Your task to perform on an android device: Add "logitech g933" to the cart on walmart Image 0: 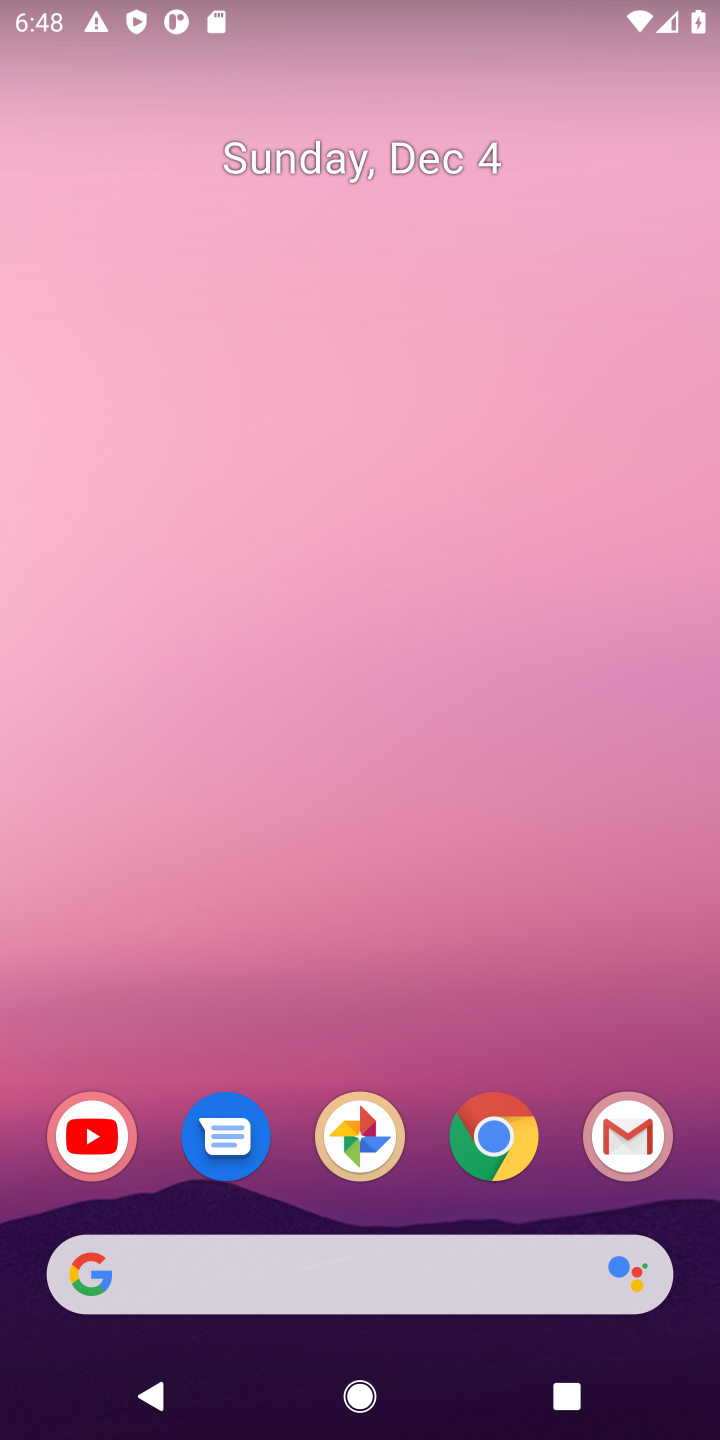
Step 0: click (488, 1148)
Your task to perform on an android device: Add "logitech g933" to the cart on walmart Image 1: 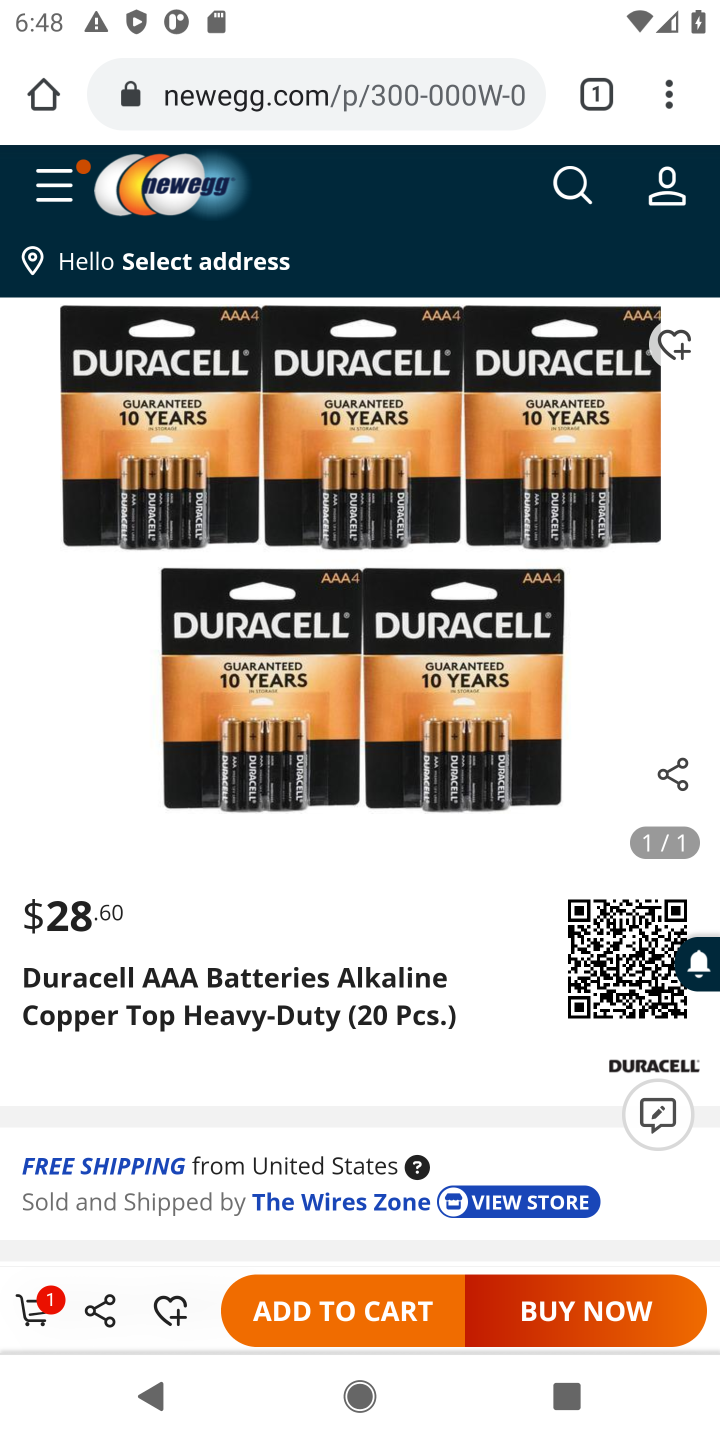
Step 1: click (250, 92)
Your task to perform on an android device: Add "logitech g933" to the cart on walmart Image 2: 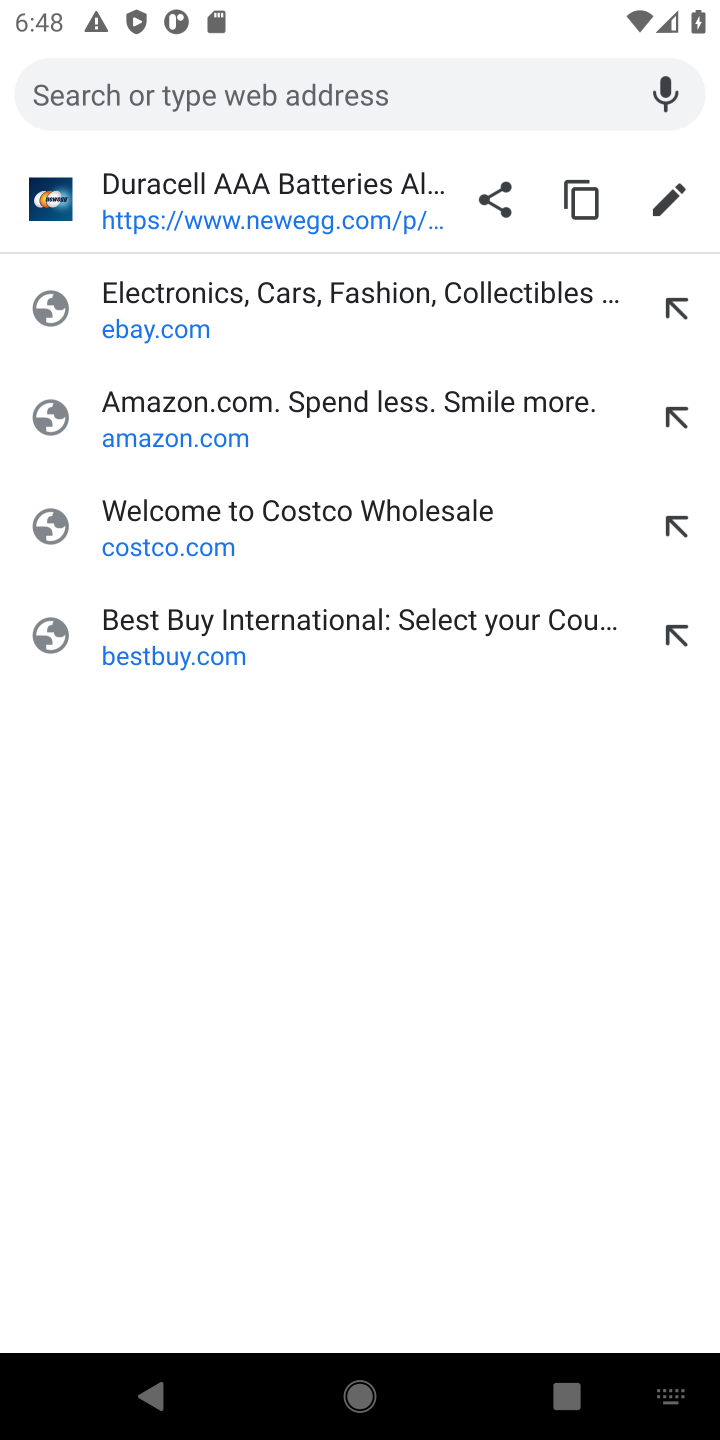
Step 2: type "walmart.com"
Your task to perform on an android device: Add "logitech g933" to the cart on walmart Image 3: 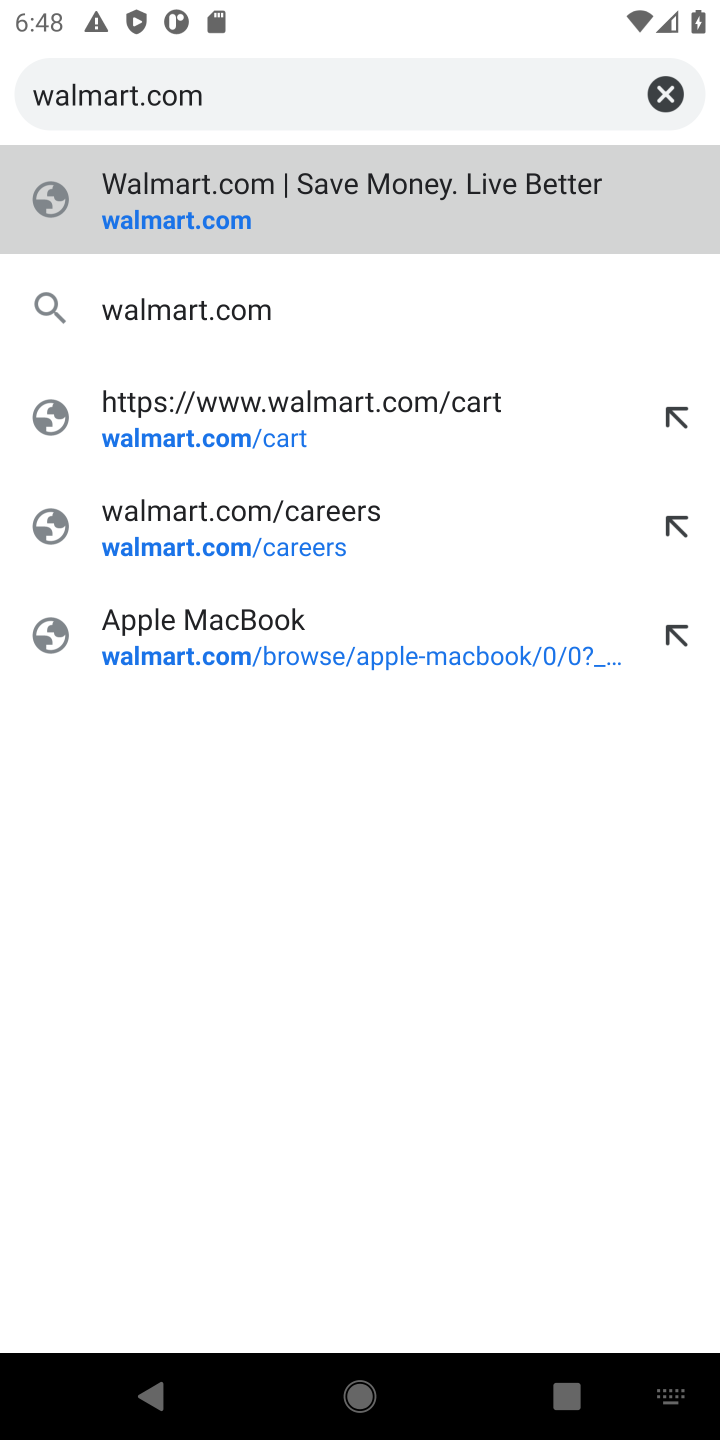
Step 3: click (199, 218)
Your task to perform on an android device: Add "logitech g933" to the cart on walmart Image 4: 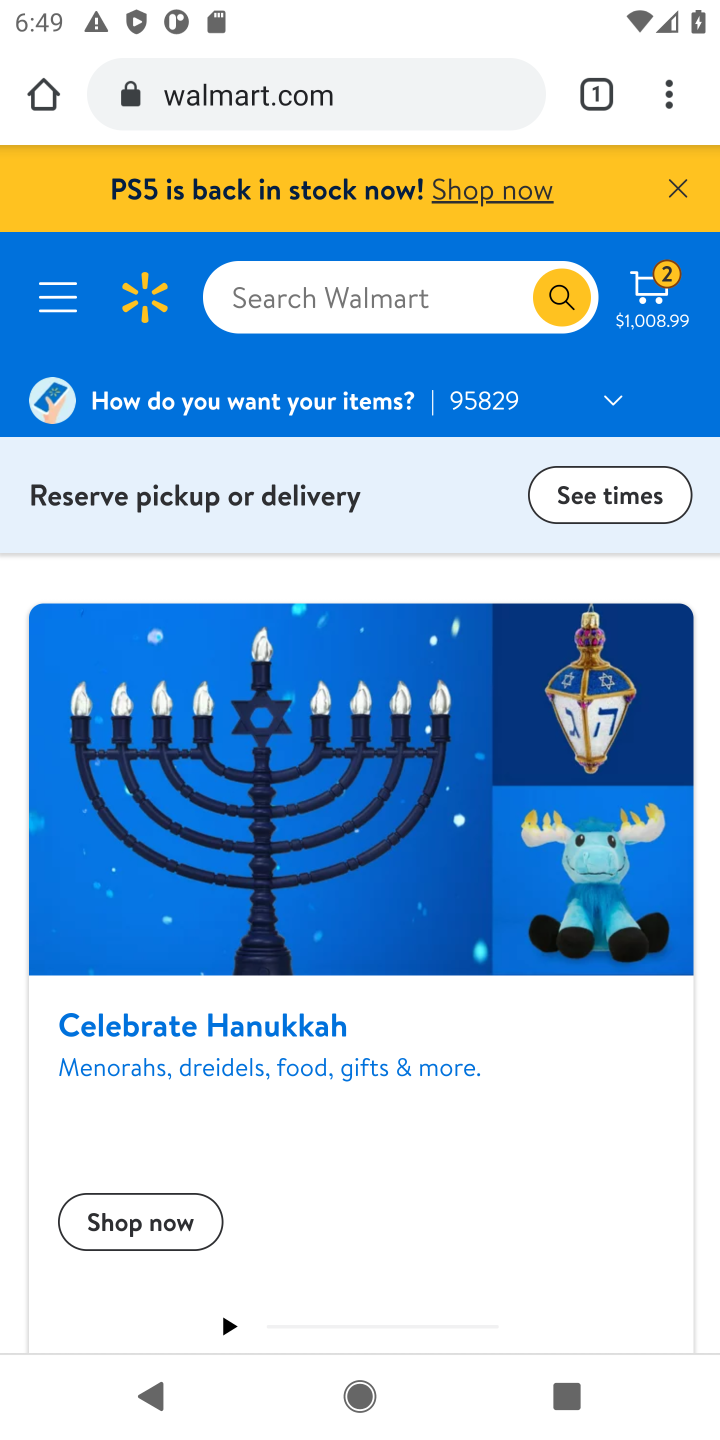
Step 4: click (272, 313)
Your task to perform on an android device: Add "logitech g933" to the cart on walmart Image 5: 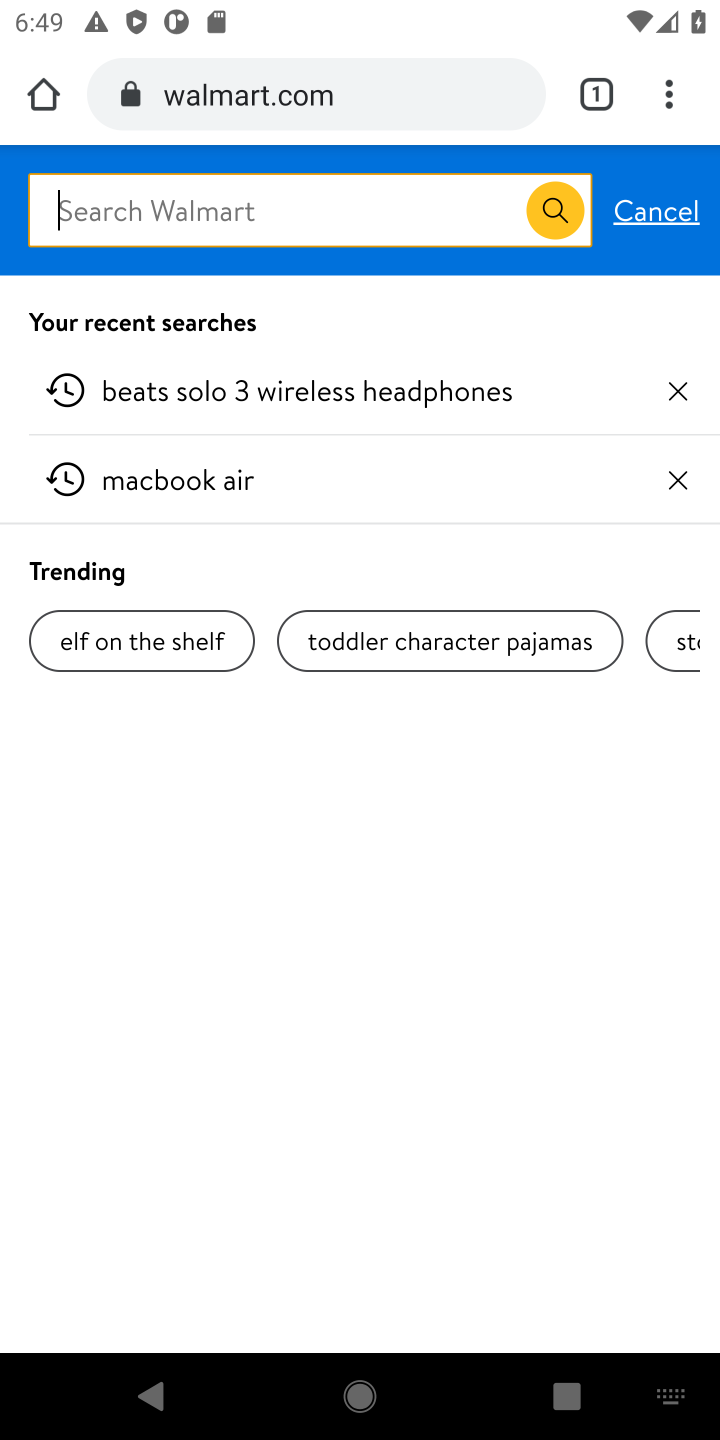
Step 5: type "logitech g933"
Your task to perform on an android device: Add "logitech g933" to the cart on walmart Image 6: 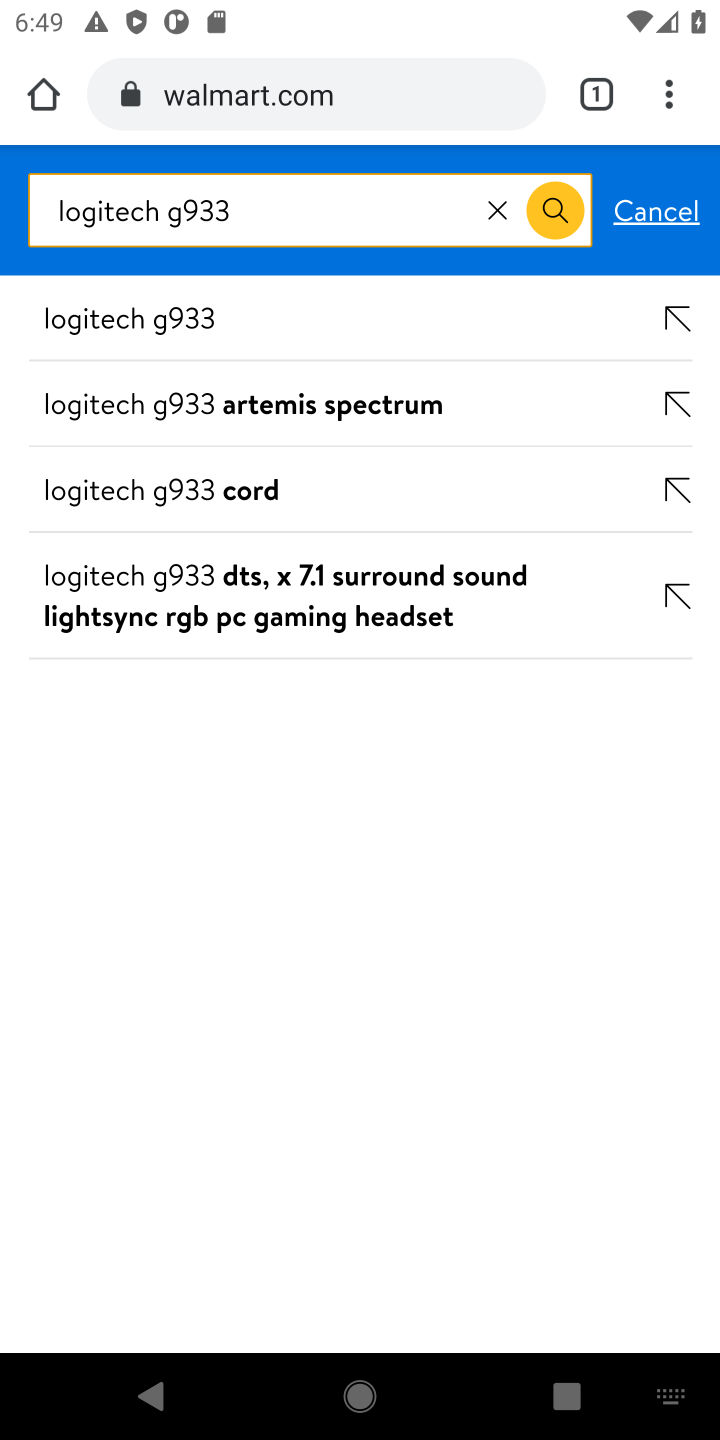
Step 6: click (144, 328)
Your task to perform on an android device: Add "logitech g933" to the cart on walmart Image 7: 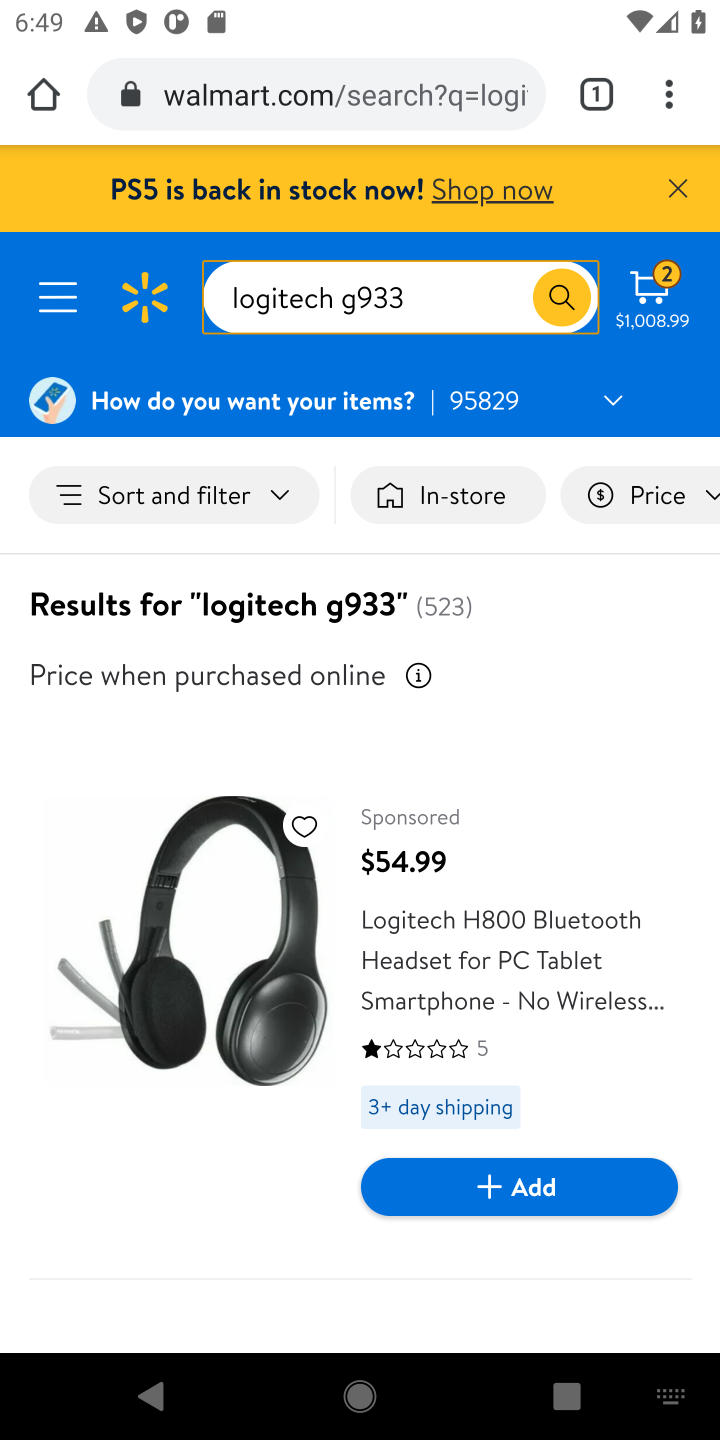
Step 7: drag from (548, 1018) to (536, 535)
Your task to perform on an android device: Add "logitech g933" to the cart on walmart Image 8: 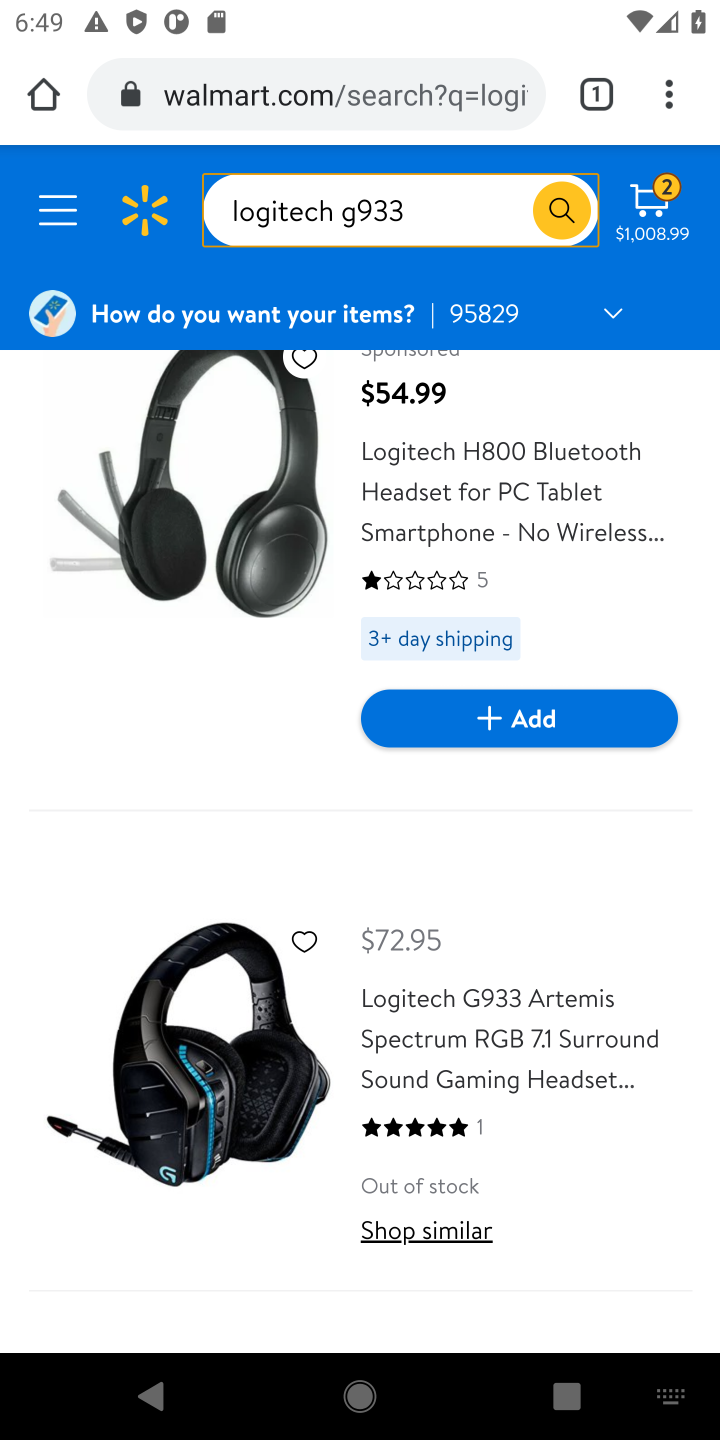
Step 8: drag from (589, 1066) to (565, 743)
Your task to perform on an android device: Add "logitech g933" to the cart on walmart Image 9: 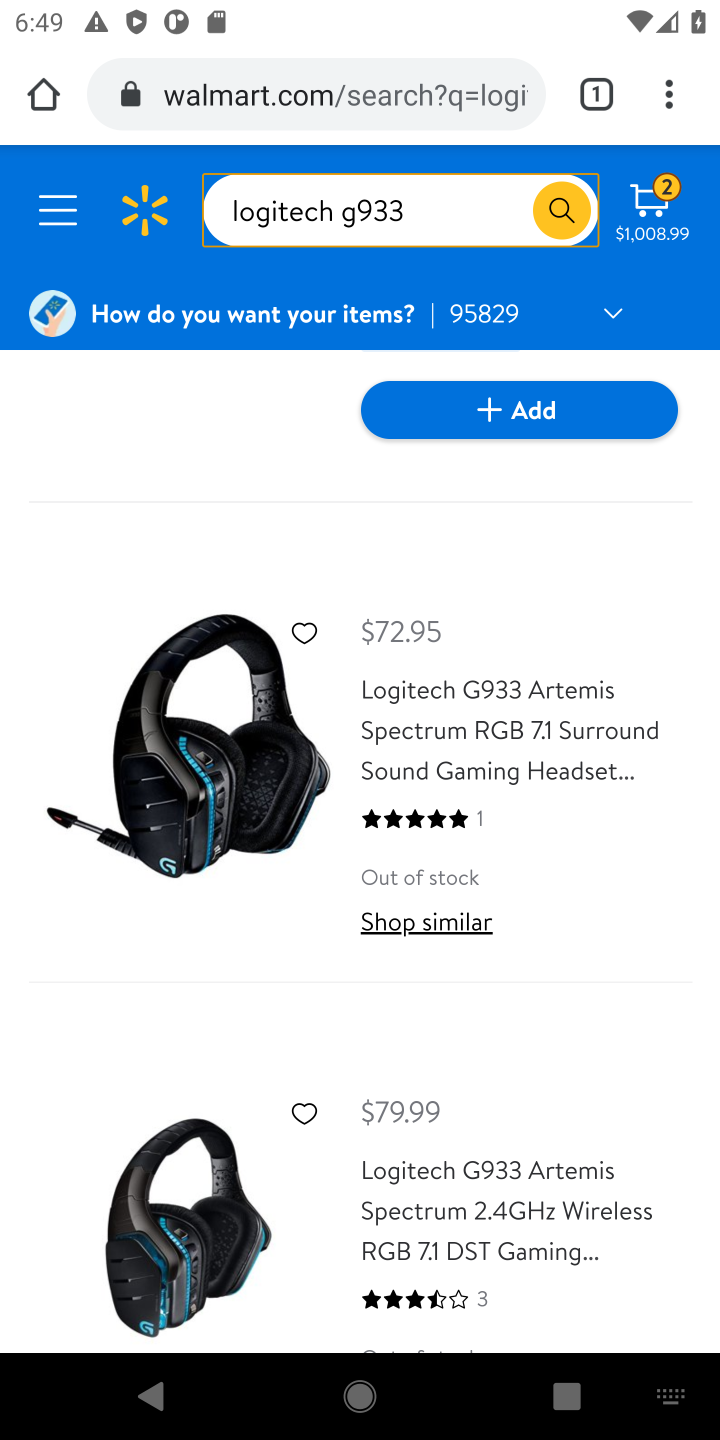
Step 9: drag from (581, 1113) to (610, 618)
Your task to perform on an android device: Add "logitech g933" to the cart on walmart Image 10: 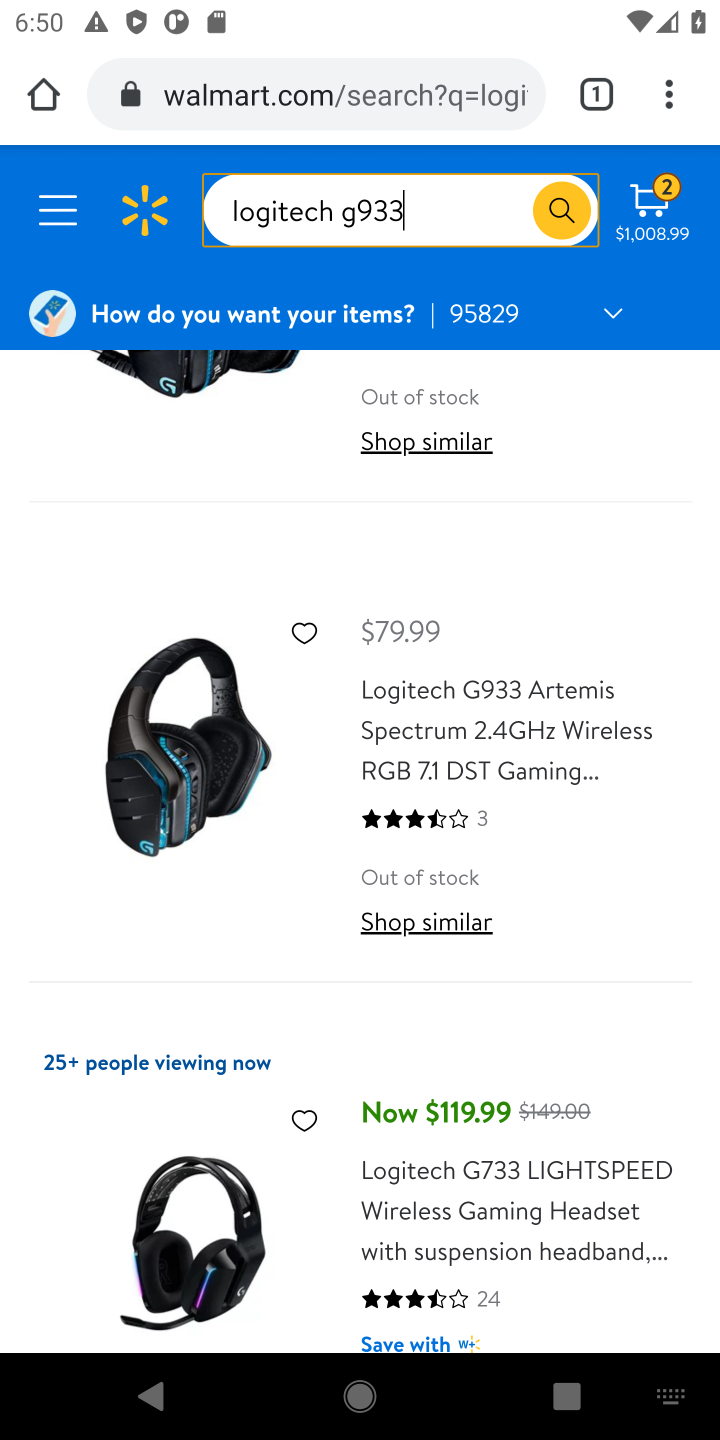
Step 10: drag from (544, 1049) to (560, 523)
Your task to perform on an android device: Add "logitech g933" to the cart on walmart Image 11: 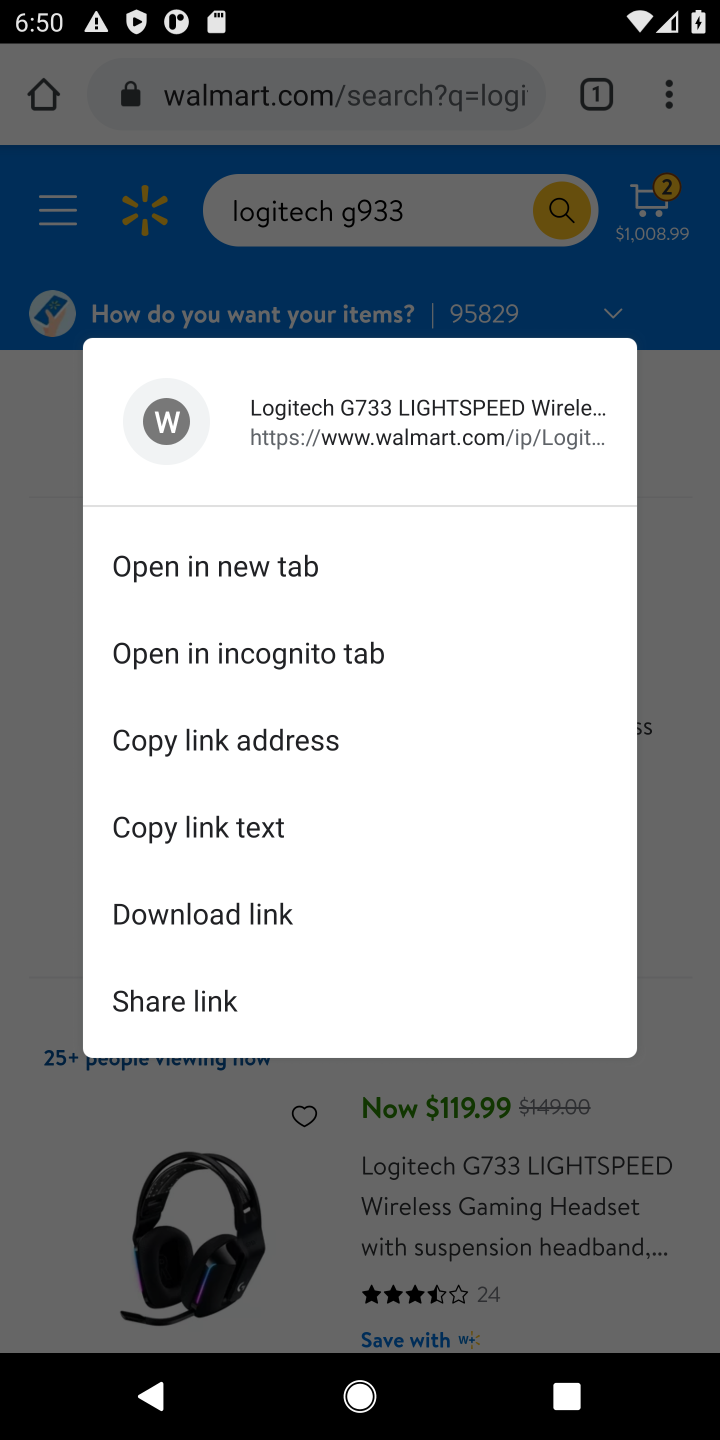
Step 11: click (671, 961)
Your task to perform on an android device: Add "logitech g933" to the cart on walmart Image 12: 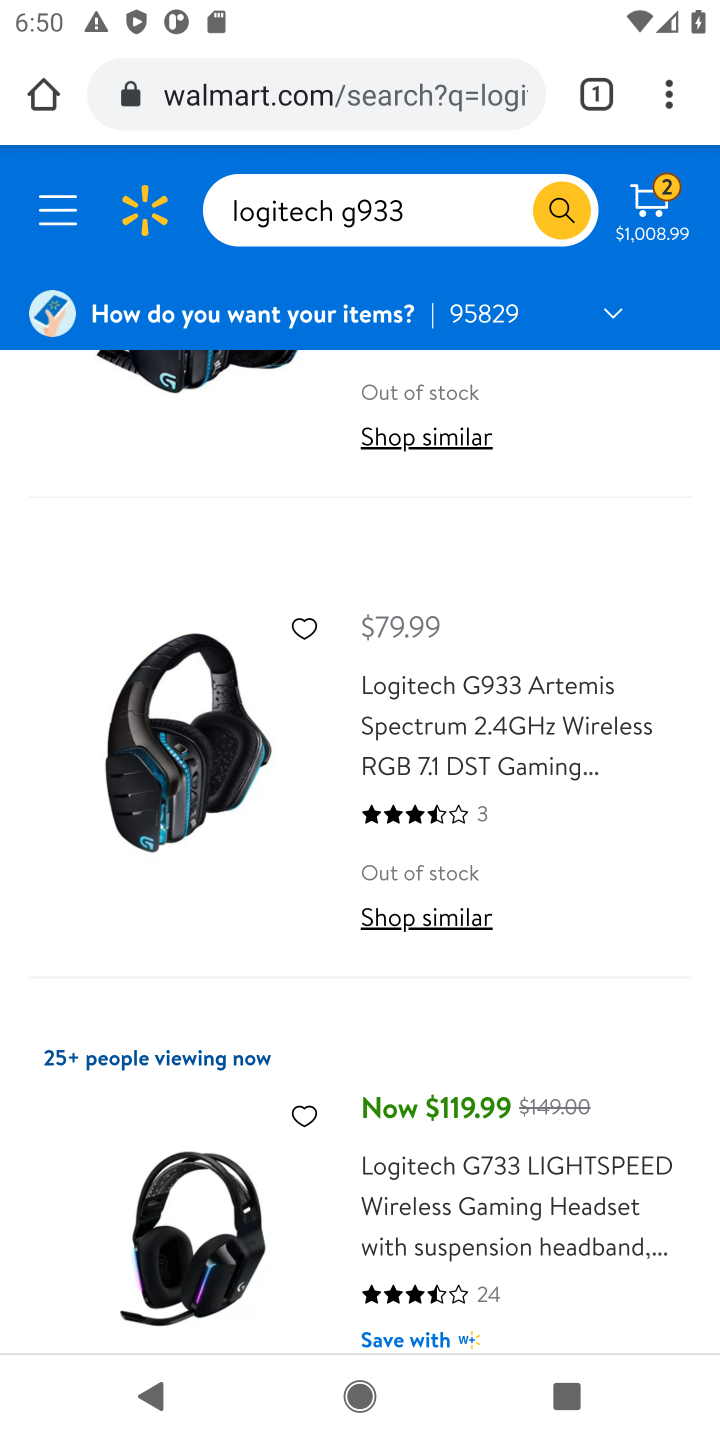
Step 12: drag from (657, 562) to (655, 427)
Your task to perform on an android device: Add "logitech g933" to the cart on walmart Image 13: 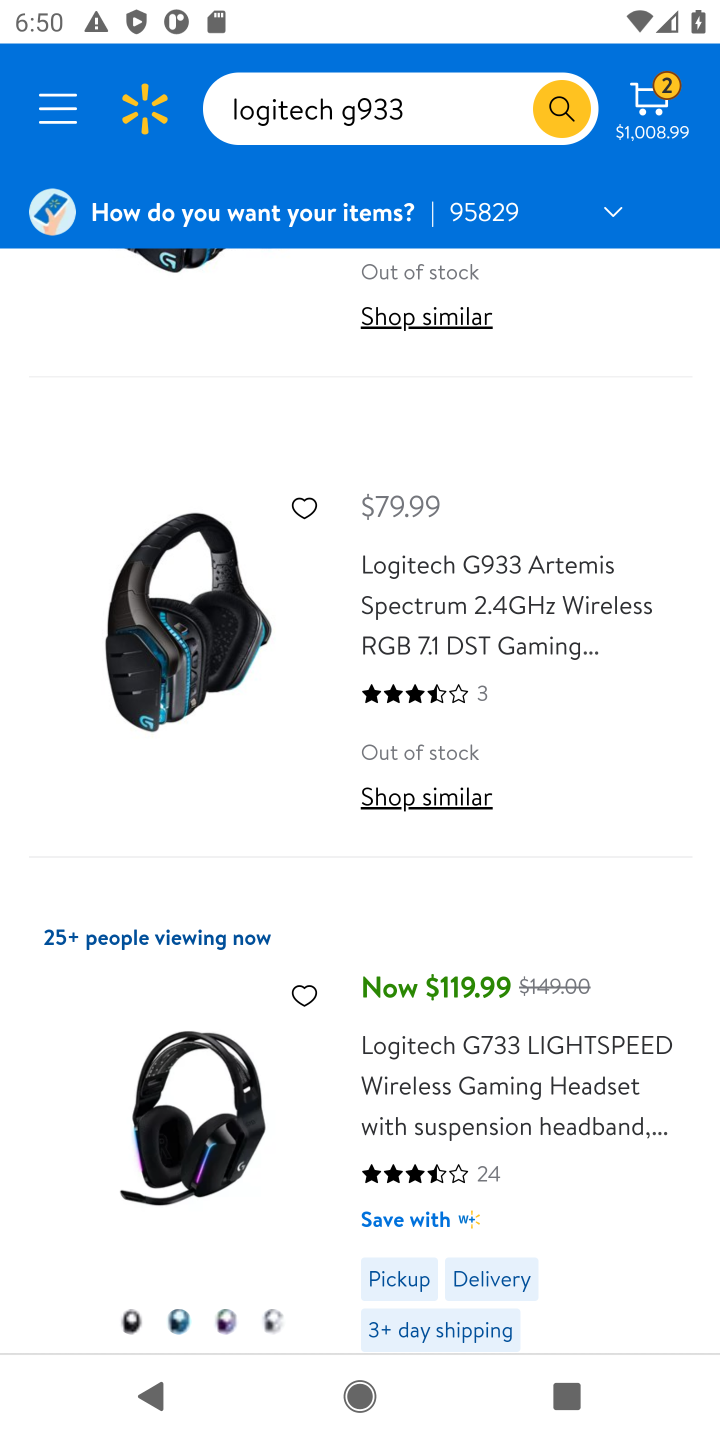
Step 13: drag from (647, 1166) to (618, 650)
Your task to perform on an android device: Add "logitech g933" to the cart on walmart Image 14: 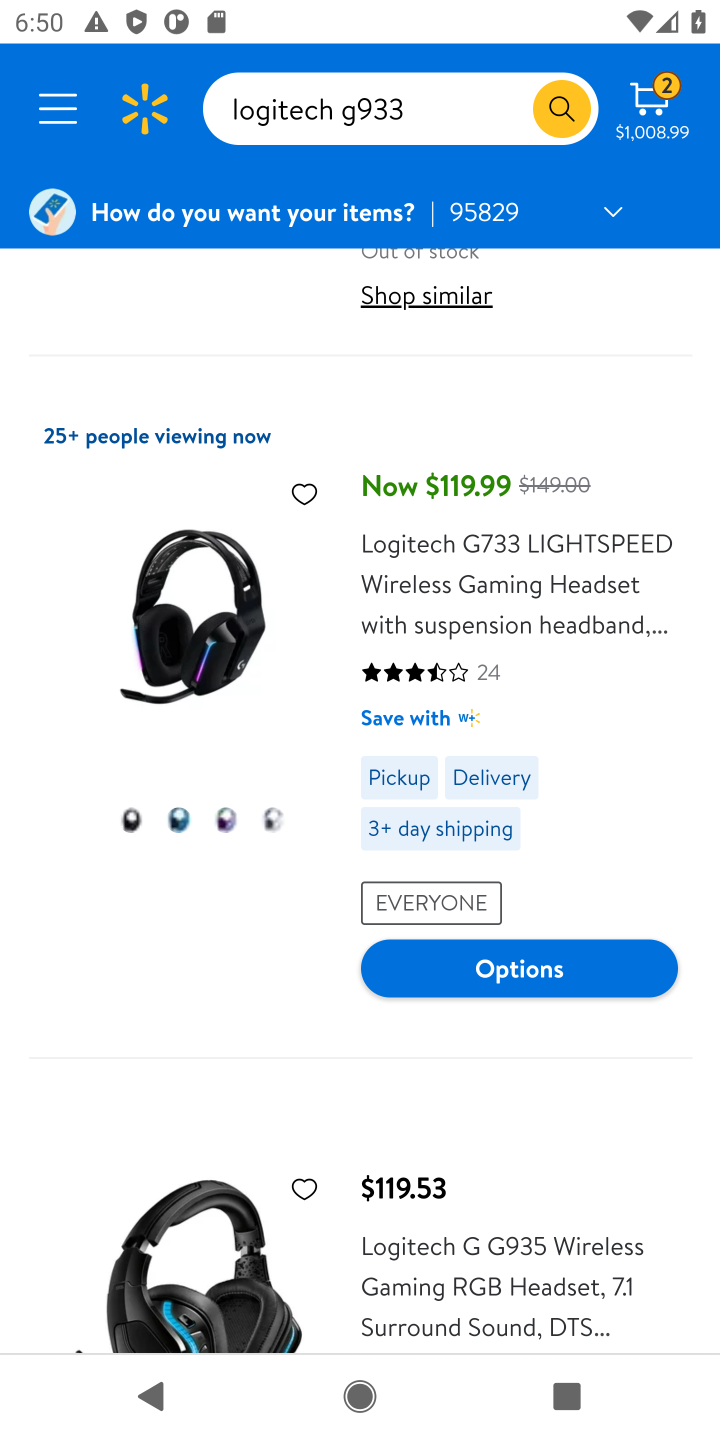
Step 14: drag from (656, 1148) to (648, 528)
Your task to perform on an android device: Add "logitech g933" to the cart on walmart Image 15: 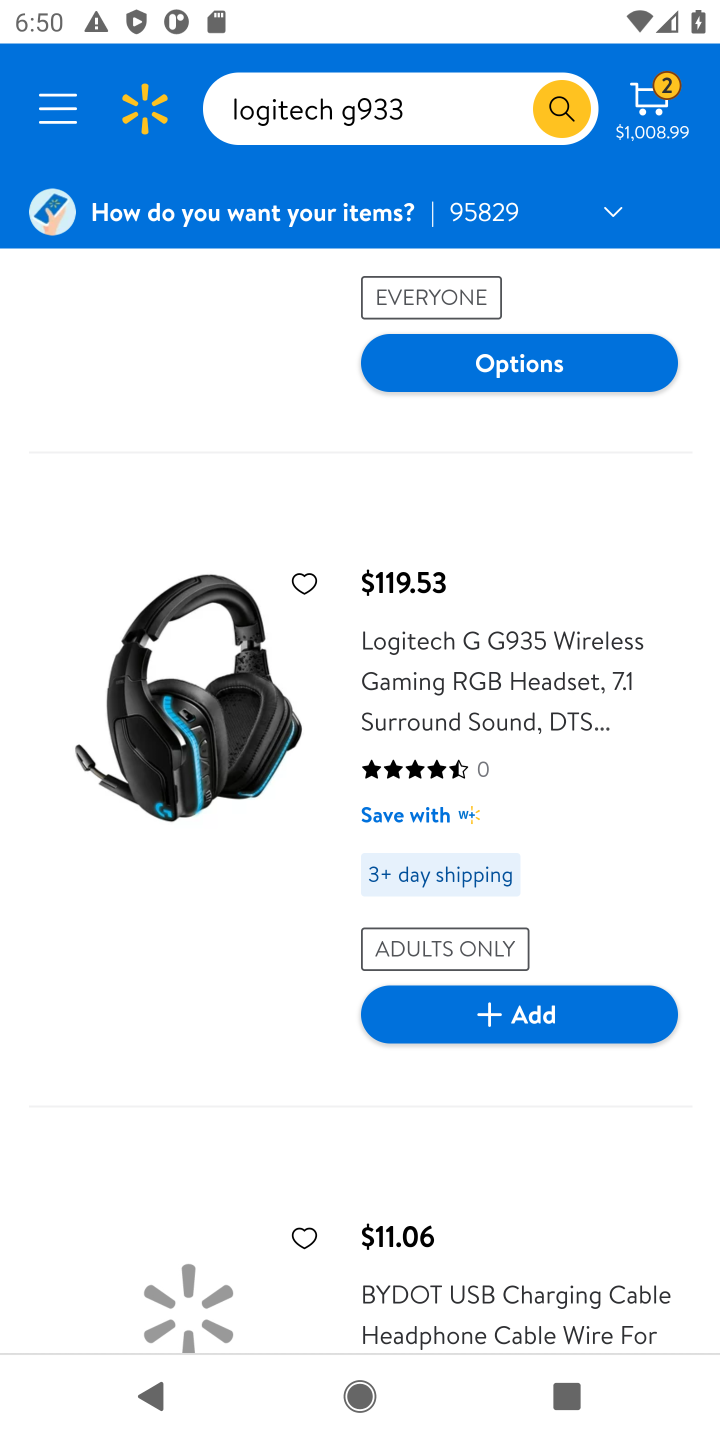
Step 15: drag from (640, 1229) to (632, 646)
Your task to perform on an android device: Add "logitech g933" to the cart on walmart Image 16: 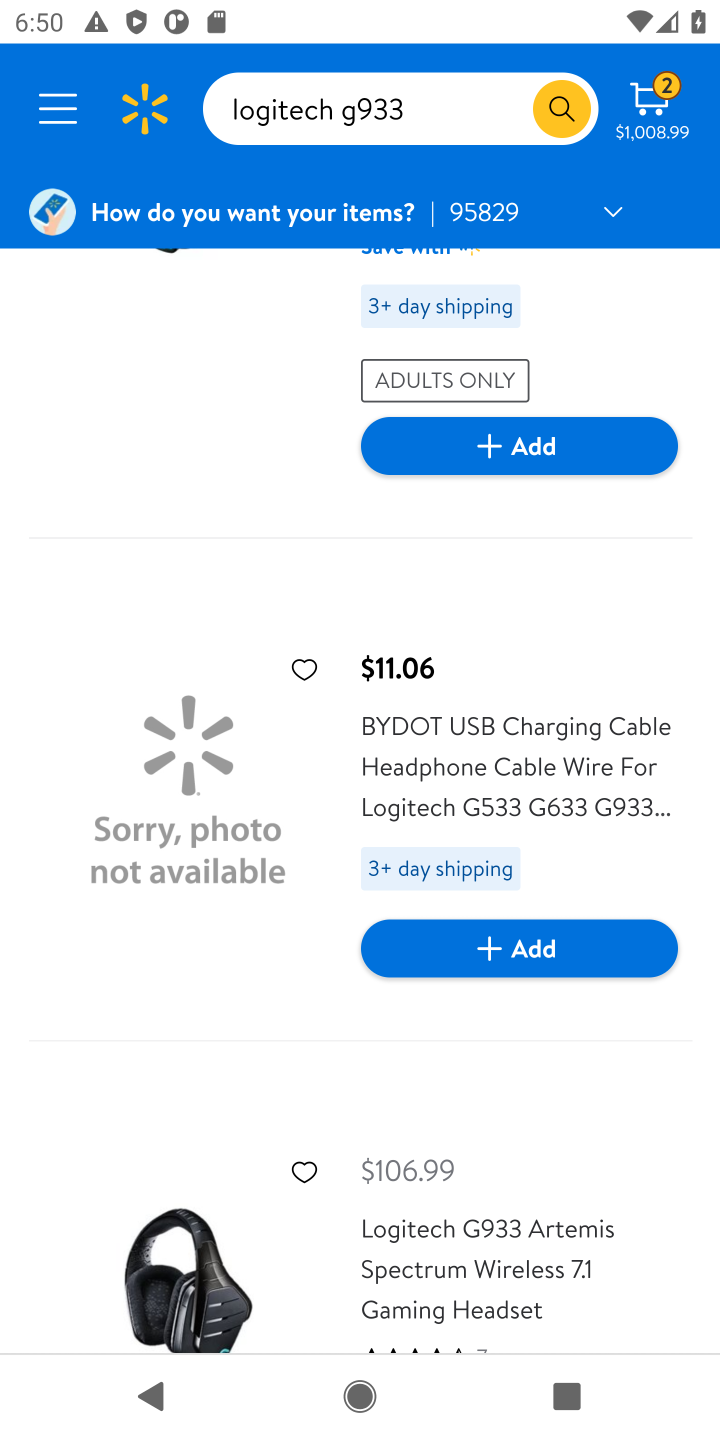
Step 16: click (527, 953)
Your task to perform on an android device: Add "logitech g933" to the cart on walmart Image 17: 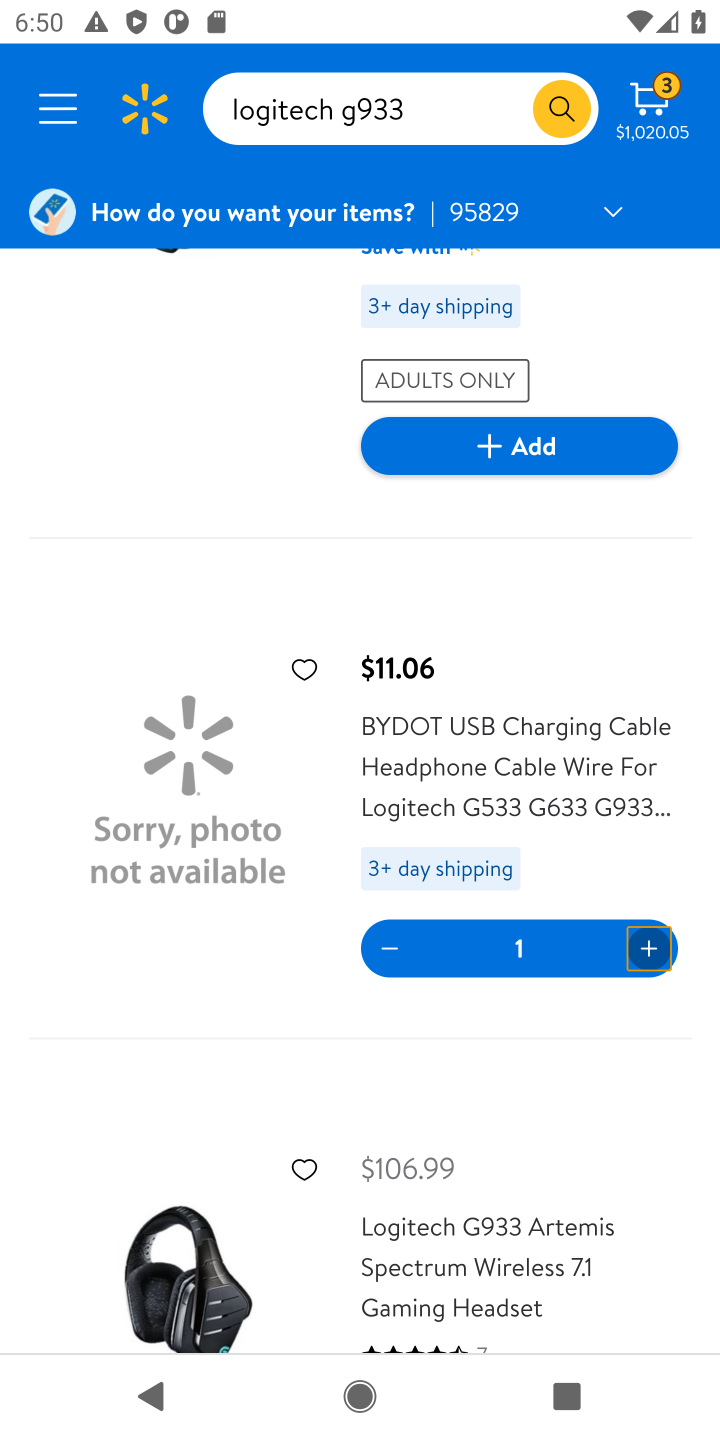
Step 17: task complete